Your task to perform on an android device: Show me popular games on the Play Store Image 0: 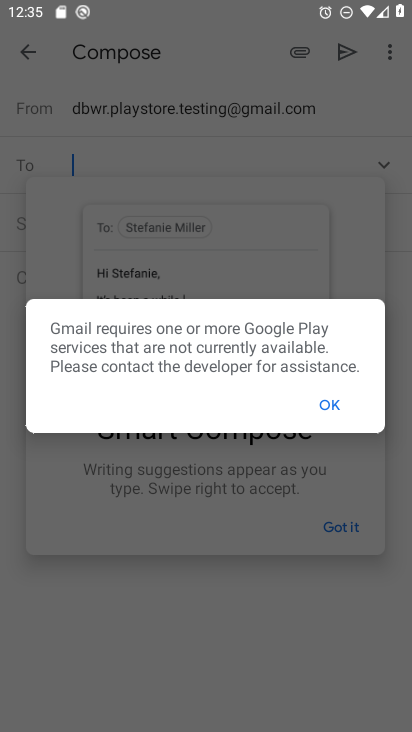
Step 0: press home button
Your task to perform on an android device: Show me popular games on the Play Store Image 1: 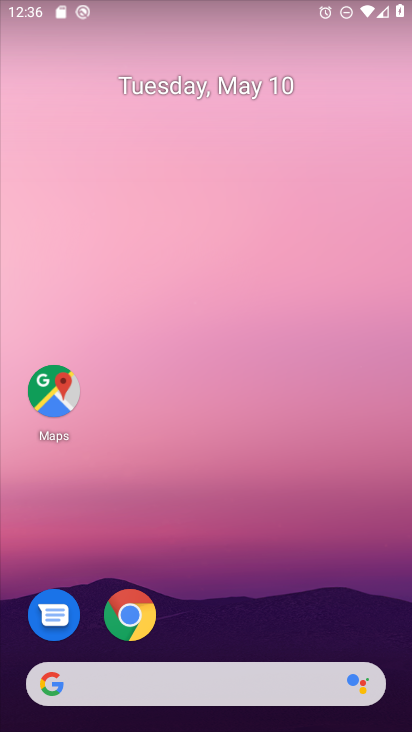
Step 1: drag from (190, 716) to (219, 253)
Your task to perform on an android device: Show me popular games on the Play Store Image 2: 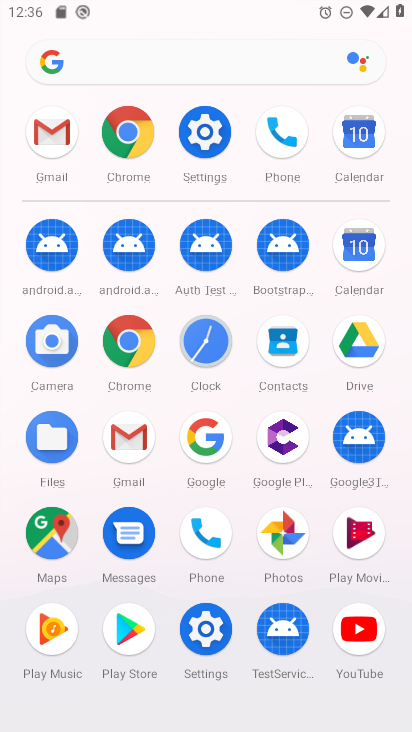
Step 2: click (124, 619)
Your task to perform on an android device: Show me popular games on the Play Store Image 3: 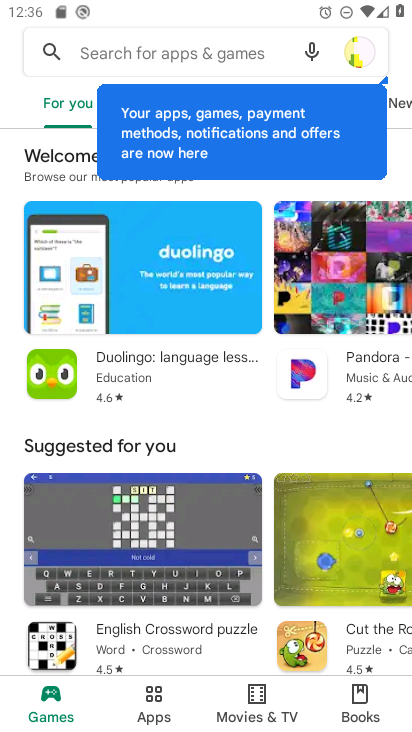
Step 3: click (141, 45)
Your task to perform on an android device: Show me popular games on the Play Store Image 4: 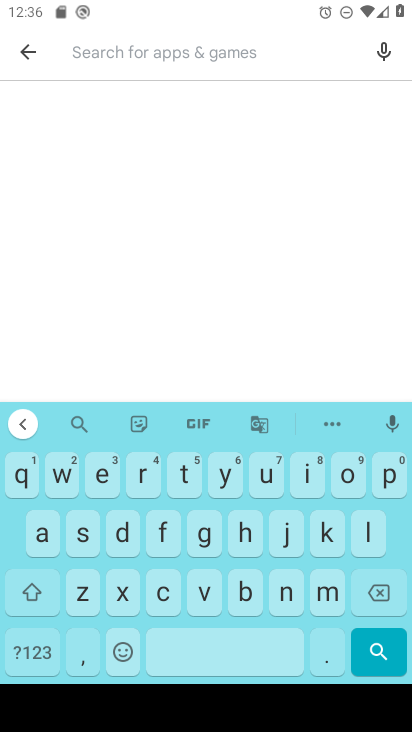
Step 4: click (389, 483)
Your task to perform on an android device: Show me popular games on the Play Store Image 5: 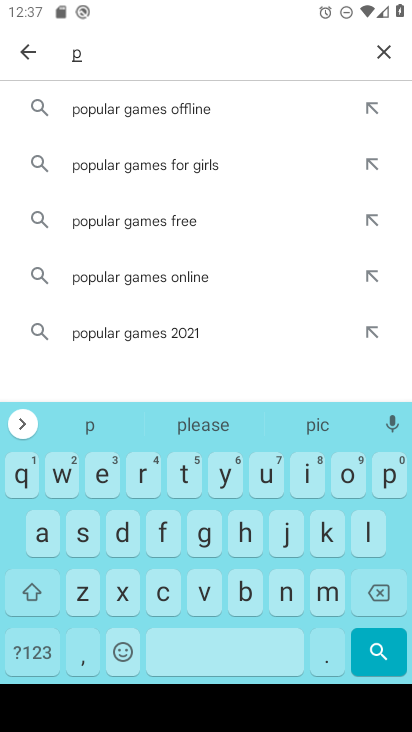
Step 5: click (120, 275)
Your task to perform on an android device: Show me popular games on the Play Store Image 6: 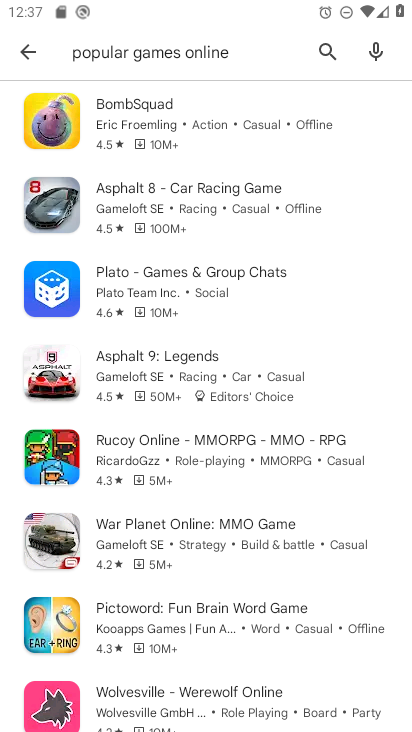
Step 6: task complete